Your task to perform on an android device: Open maps Image 0: 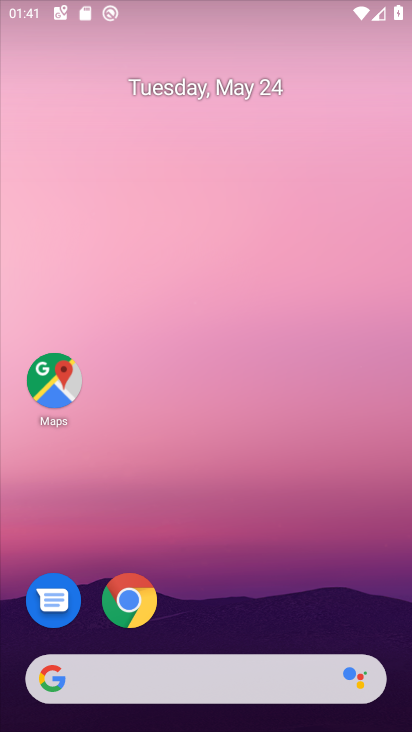
Step 0: press home button
Your task to perform on an android device: Open maps Image 1: 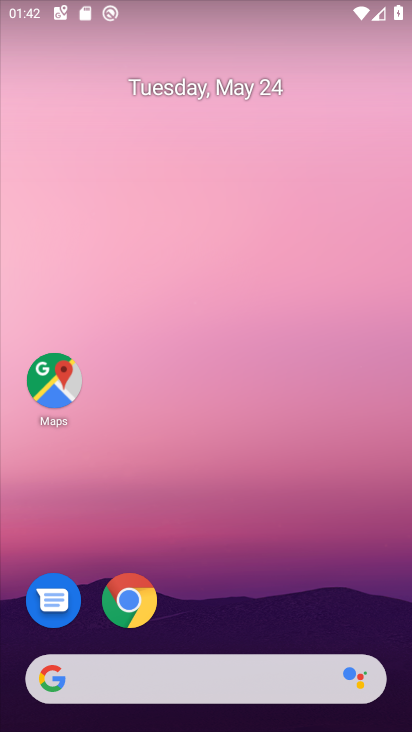
Step 1: click (34, 394)
Your task to perform on an android device: Open maps Image 2: 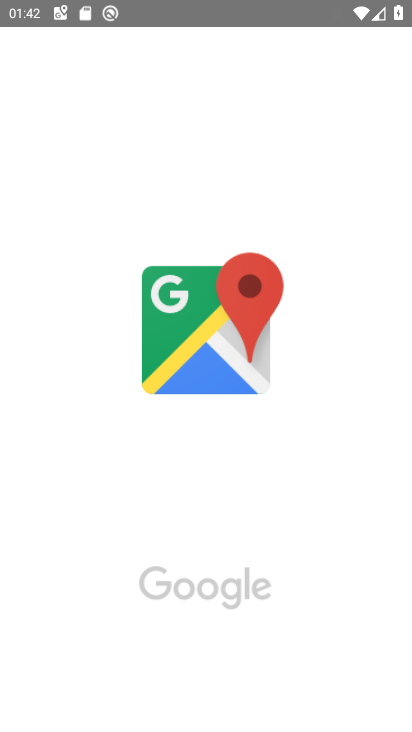
Step 2: task complete